Your task to perform on an android device: change the upload size in google photos Image 0: 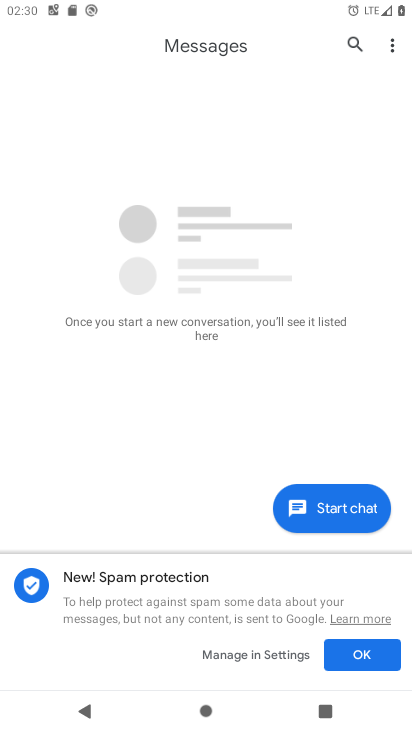
Step 0: press home button
Your task to perform on an android device: change the upload size in google photos Image 1: 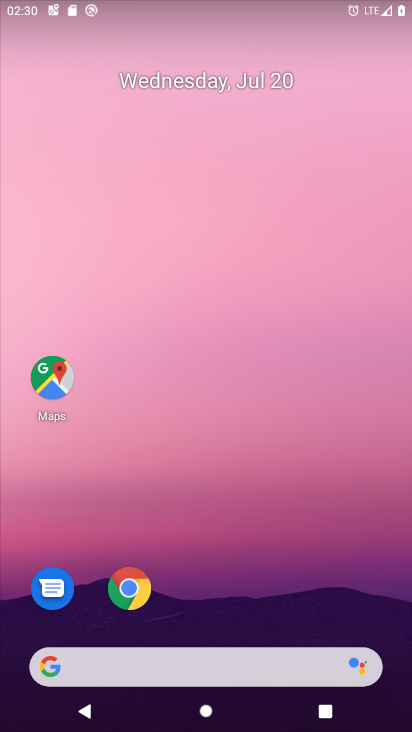
Step 1: drag from (220, 594) to (208, 362)
Your task to perform on an android device: change the upload size in google photos Image 2: 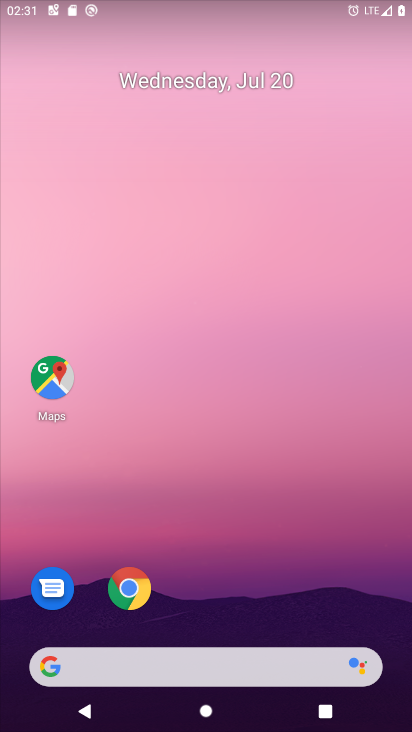
Step 2: drag from (223, 575) to (235, 189)
Your task to perform on an android device: change the upload size in google photos Image 3: 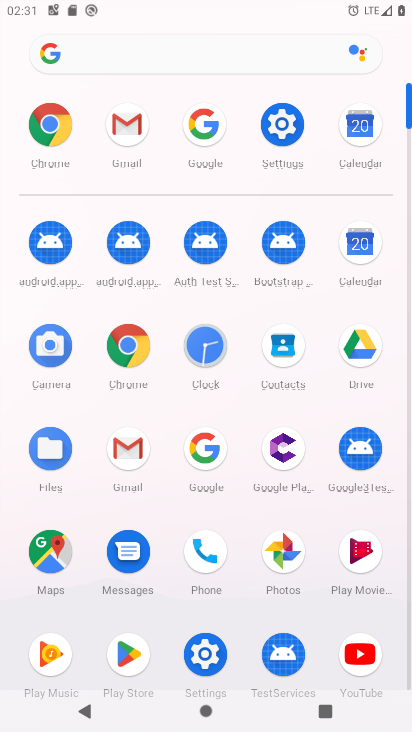
Step 3: click (277, 554)
Your task to perform on an android device: change the upload size in google photos Image 4: 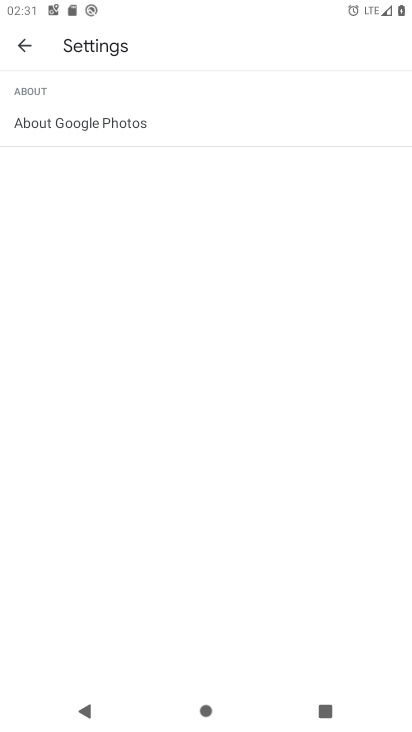
Step 4: click (30, 43)
Your task to perform on an android device: change the upload size in google photos Image 5: 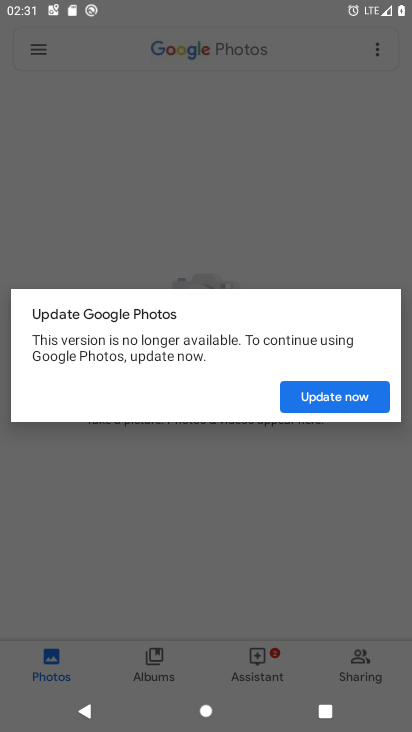
Step 5: click (296, 396)
Your task to perform on an android device: change the upload size in google photos Image 6: 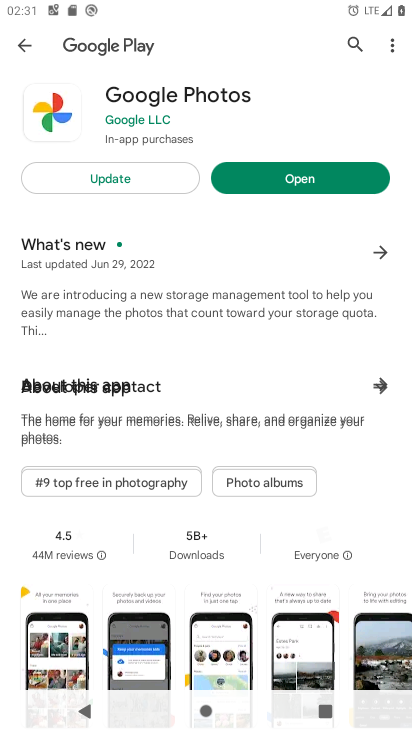
Step 6: press back button
Your task to perform on an android device: change the upload size in google photos Image 7: 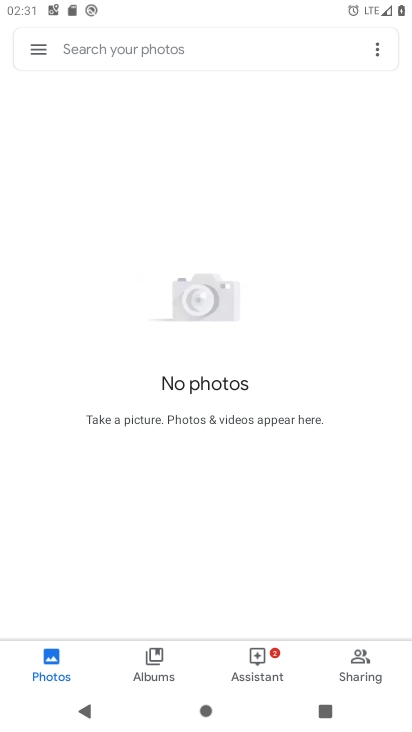
Step 7: click (37, 49)
Your task to perform on an android device: change the upload size in google photos Image 8: 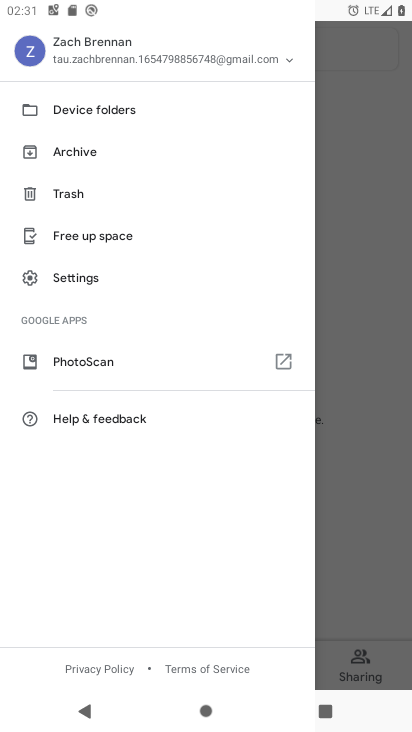
Step 8: click (81, 284)
Your task to perform on an android device: change the upload size in google photos Image 9: 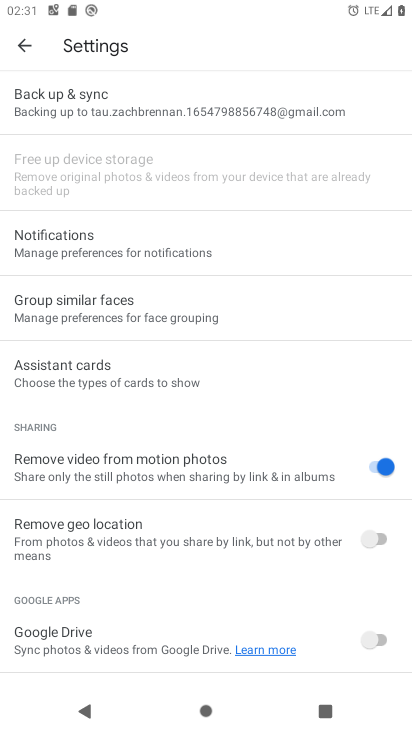
Step 9: drag from (61, 94) to (397, 346)
Your task to perform on an android device: change the upload size in google photos Image 10: 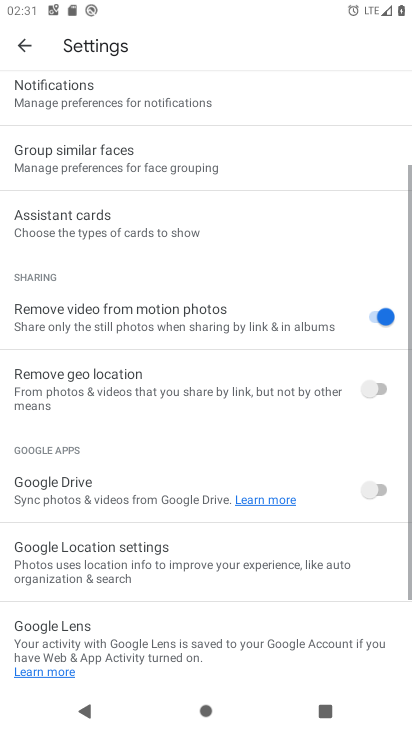
Step 10: click (54, 221)
Your task to perform on an android device: change the upload size in google photos Image 11: 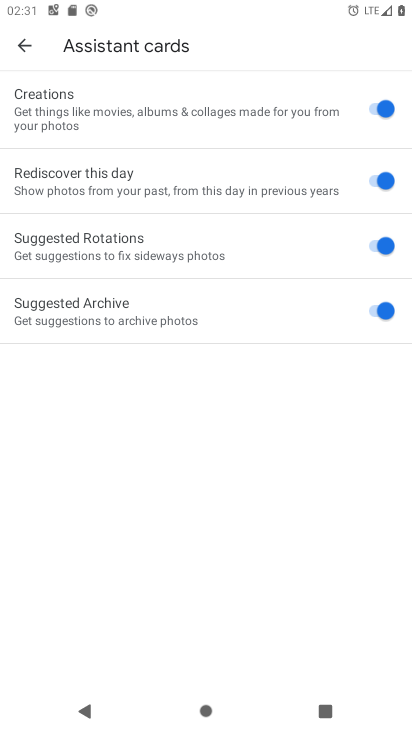
Step 11: click (36, 53)
Your task to perform on an android device: change the upload size in google photos Image 12: 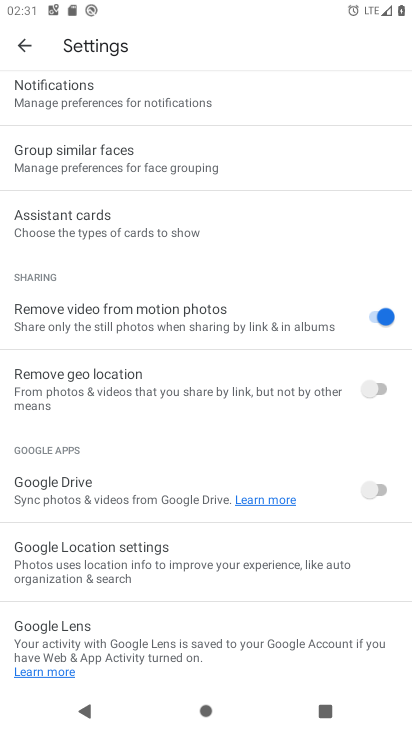
Step 12: click (77, 89)
Your task to perform on an android device: change the upload size in google photos Image 13: 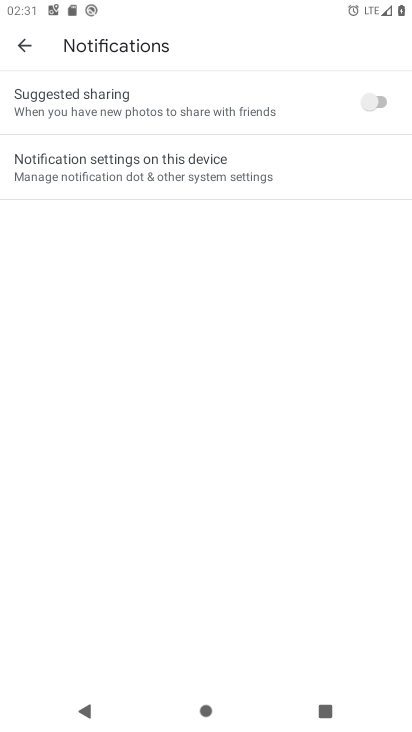
Step 13: click (18, 43)
Your task to perform on an android device: change the upload size in google photos Image 14: 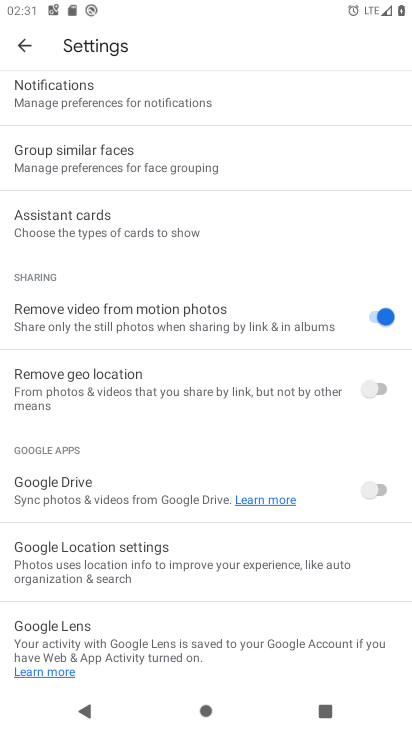
Step 14: drag from (133, 140) to (149, 335)
Your task to perform on an android device: change the upload size in google photos Image 15: 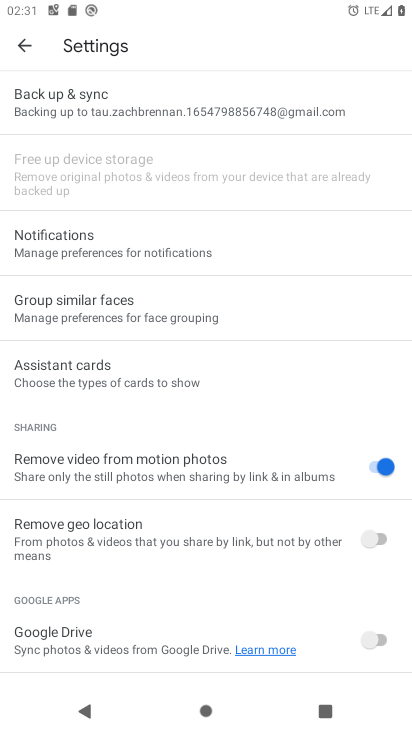
Step 15: click (109, 105)
Your task to perform on an android device: change the upload size in google photos Image 16: 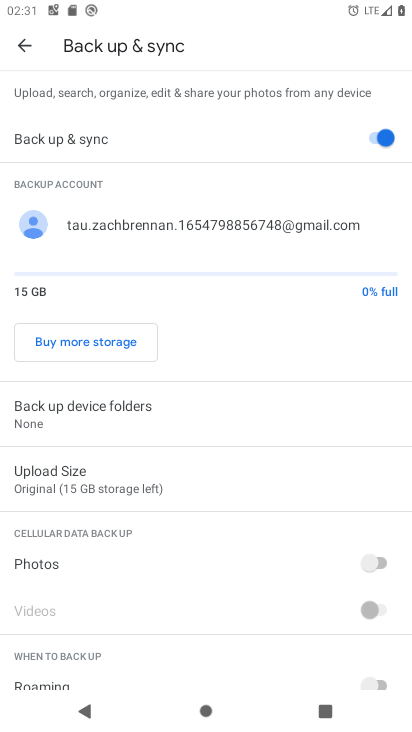
Step 16: click (140, 500)
Your task to perform on an android device: change the upload size in google photos Image 17: 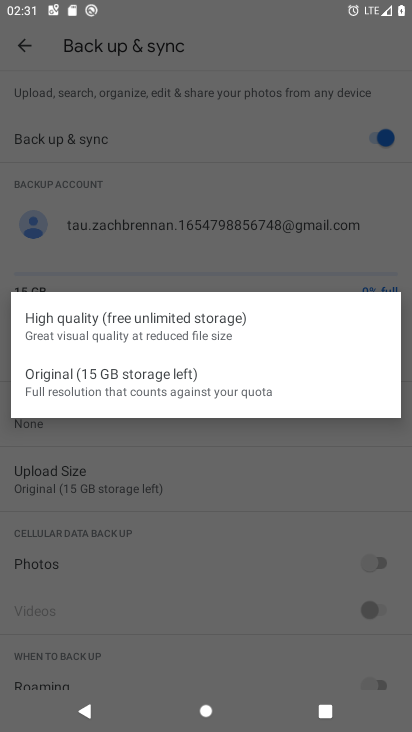
Step 17: click (129, 309)
Your task to perform on an android device: change the upload size in google photos Image 18: 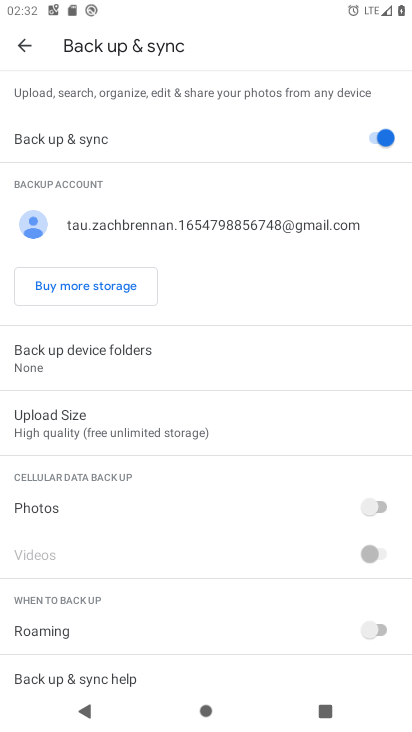
Step 18: task complete